Your task to perform on an android device: Go to accessibility settings Image 0: 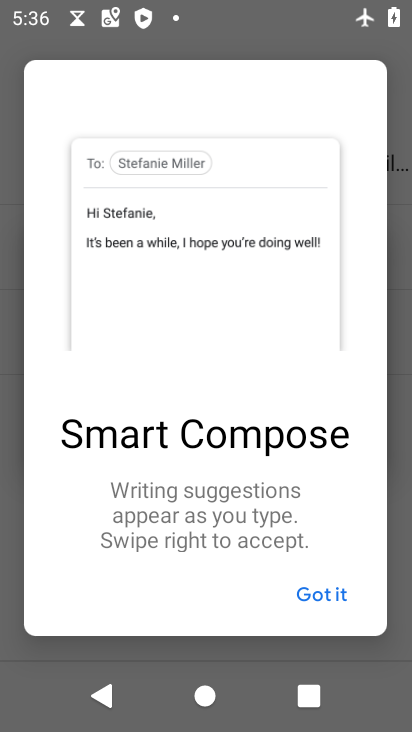
Step 0: press home button
Your task to perform on an android device: Go to accessibility settings Image 1: 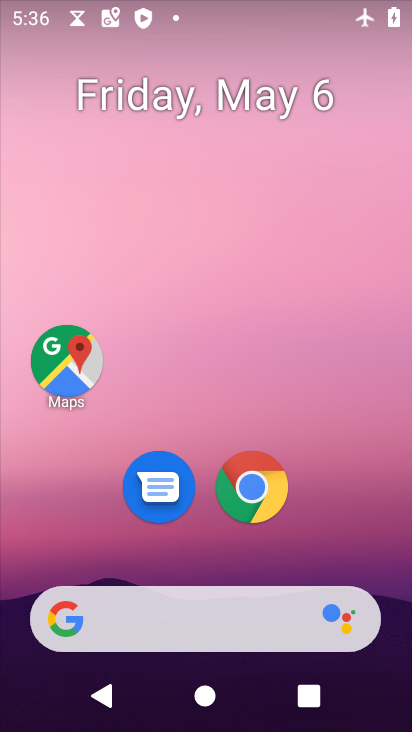
Step 1: drag from (340, 485) to (305, 58)
Your task to perform on an android device: Go to accessibility settings Image 2: 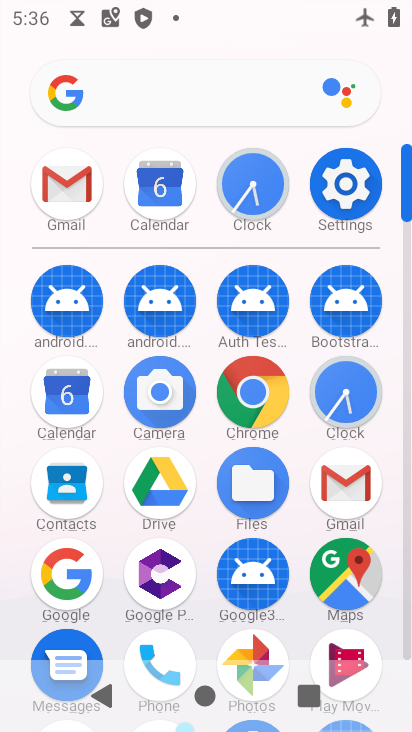
Step 2: click (344, 184)
Your task to perform on an android device: Go to accessibility settings Image 3: 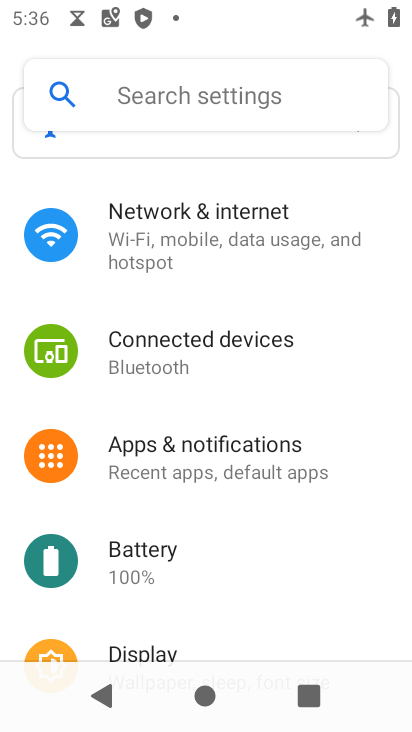
Step 3: drag from (223, 516) to (229, 414)
Your task to perform on an android device: Go to accessibility settings Image 4: 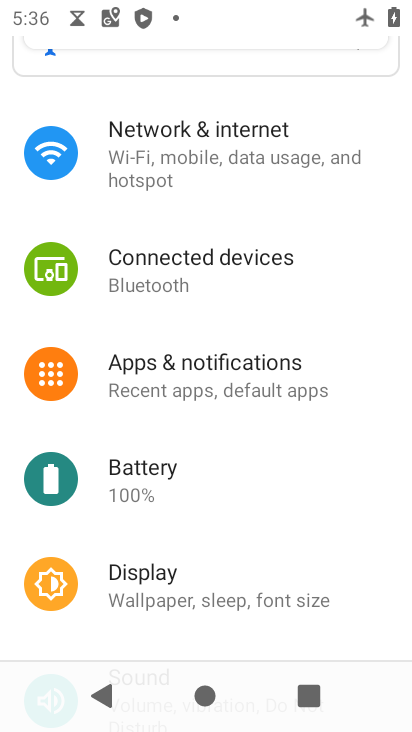
Step 4: drag from (211, 518) to (229, 349)
Your task to perform on an android device: Go to accessibility settings Image 5: 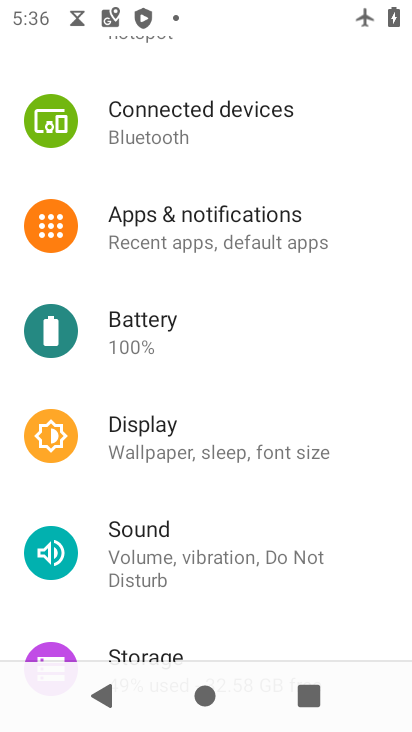
Step 5: drag from (217, 523) to (266, 348)
Your task to perform on an android device: Go to accessibility settings Image 6: 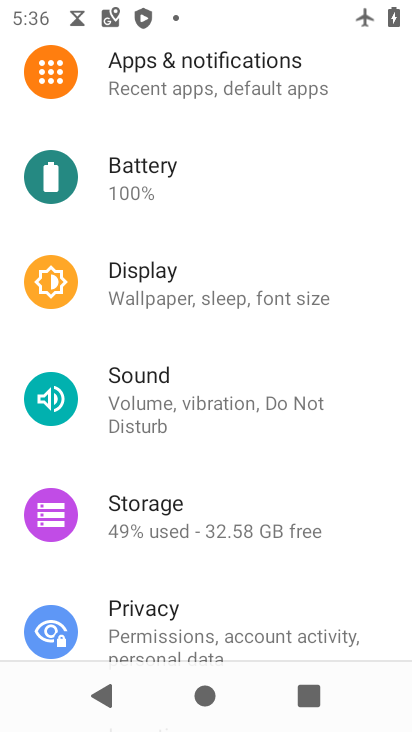
Step 6: drag from (238, 531) to (325, 335)
Your task to perform on an android device: Go to accessibility settings Image 7: 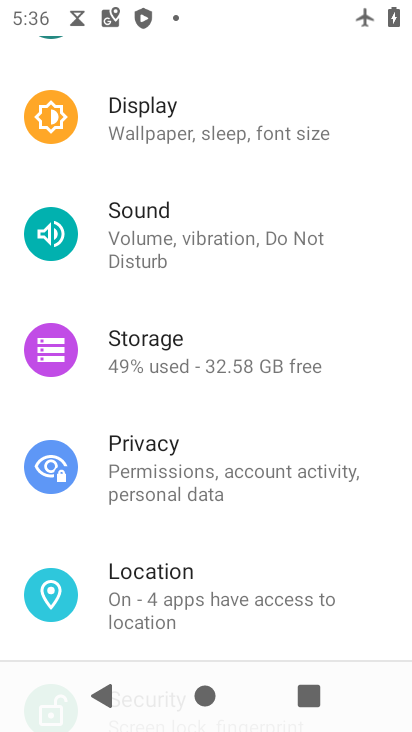
Step 7: drag from (262, 533) to (310, 318)
Your task to perform on an android device: Go to accessibility settings Image 8: 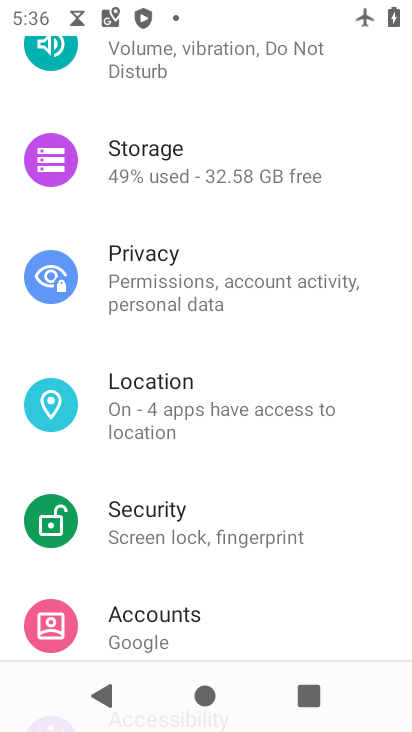
Step 8: drag from (224, 596) to (300, 372)
Your task to perform on an android device: Go to accessibility settings Image 9: 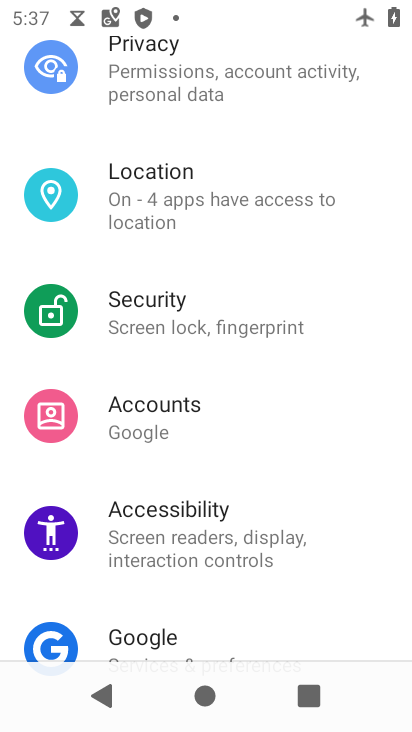
Step 9: drag from (254, 570) to (274, 489)
Your task to perform on an android device: Go to accessibility settings Image 10: 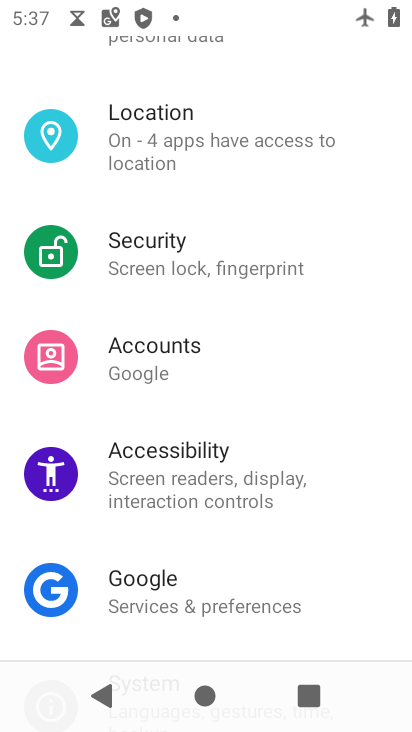
Step 10: click (191, 449)
Your task to perform on an android device: Go to accessibility settings Image 11: 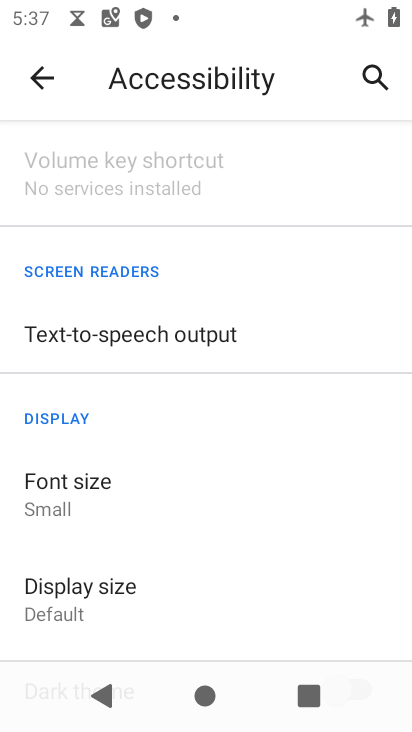
Step 11: task complete